Your task to perform on an android device: Search for pizza restaurants on Maps Image 0: 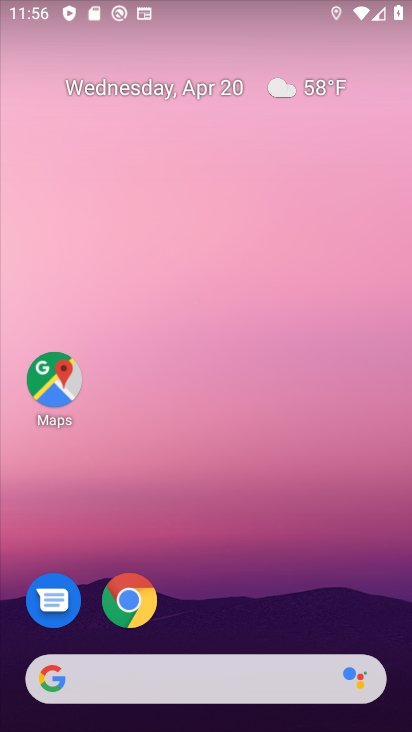
Step 0: drag from (221, 634) to (284, 15)
Your task to perform on an android device: Search for pizza restaurants on Maps Image 1: 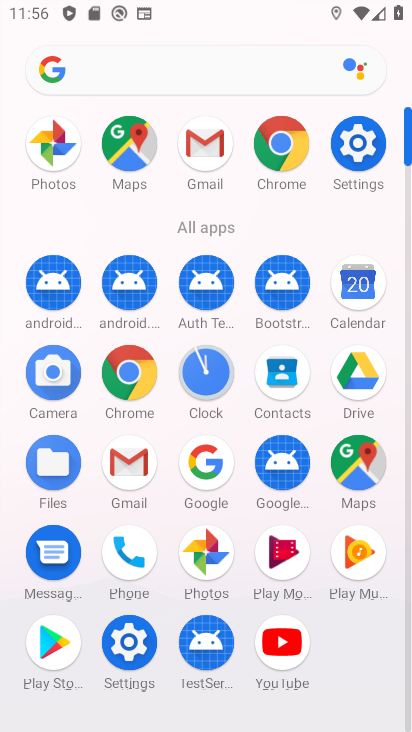
Step 1: click (350, 466)
Your task to perform on an android device: Search for pizza restaurants on Maps Image 2: 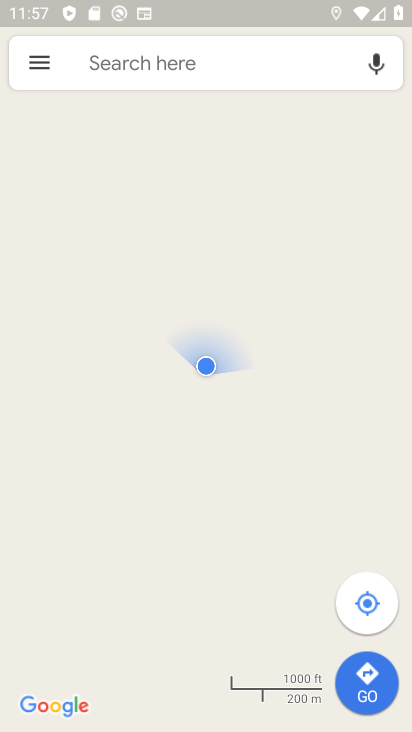
Step 2: click (148, 64)
Your task to perform on an android device: Search for pizza restaurants on Maps Image 3: 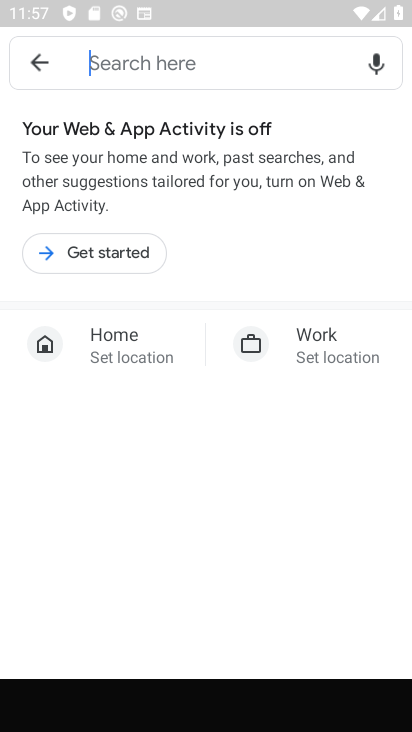
Step 3: click (97, 263)
Your task to perform on an android device: Search for pizza restaurants on Maps Image 4: 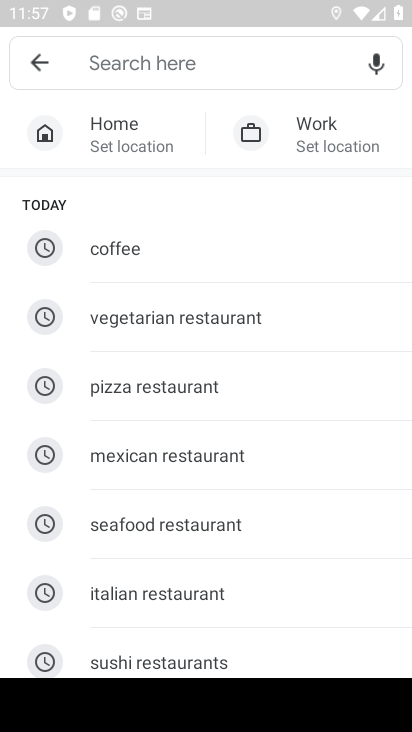
Step 4: click (176, 376)
Your task to perform on an android device: Search for pizza restaurants on Maps Image 5: 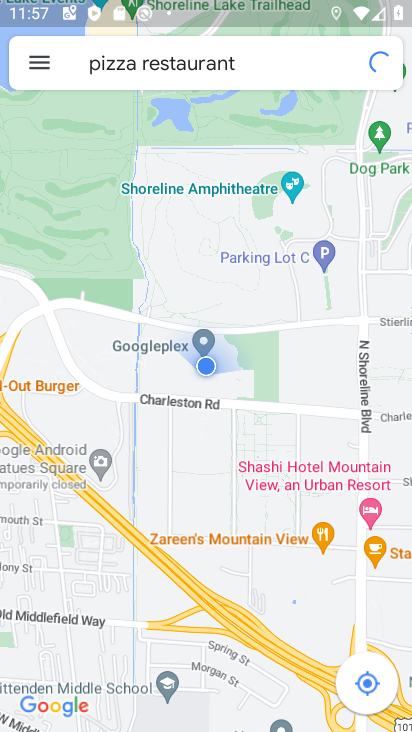
Step 5: task complete